Your task to perform on an android device: search for starred emails in the gmail app Image 0: 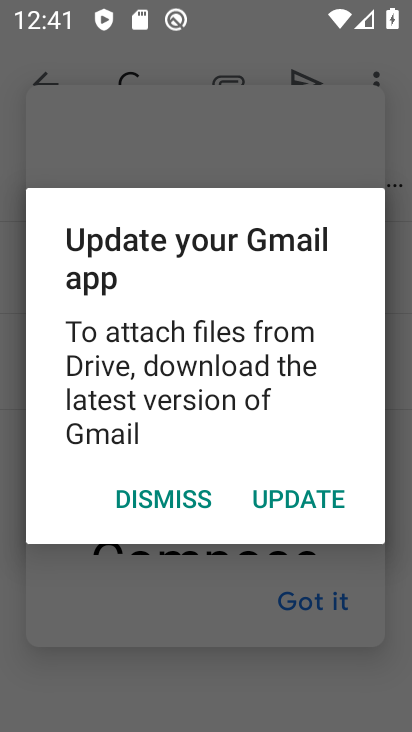
Step 0: press home button
Your task to perform on an android device: search for starred emails in the gmail app Image 1: 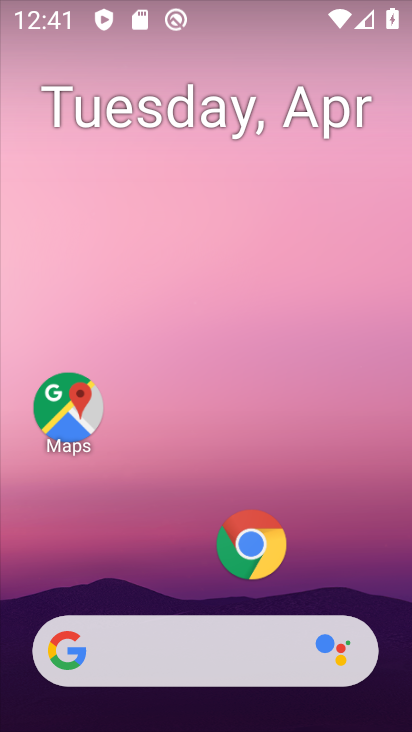
Step 1: drag from (311, 580) to (255, 73)
Your task to perform on an android device: search for starred emails in the gmail app Image 2: 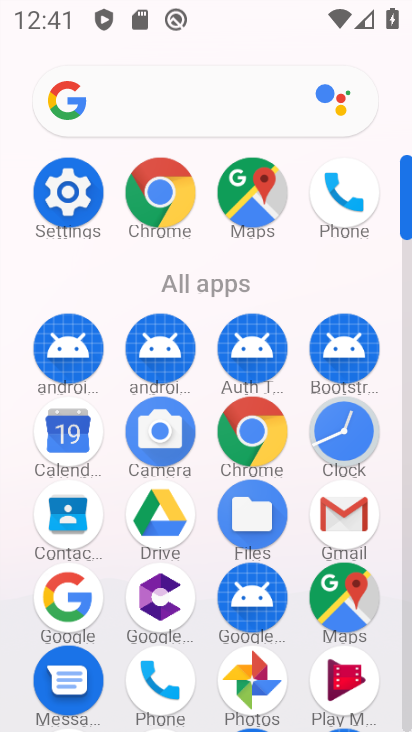
Step 2: click (337, 502)
Your task to perform on an android device: search for starred emails in the gmail app Image 3: 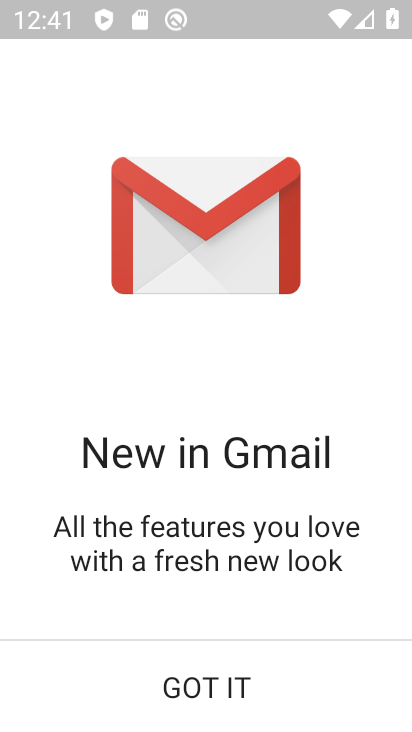
Step 3: click (208, 683)
Your task to perform on an android device: search for starred emails in the gmail app Image 4: 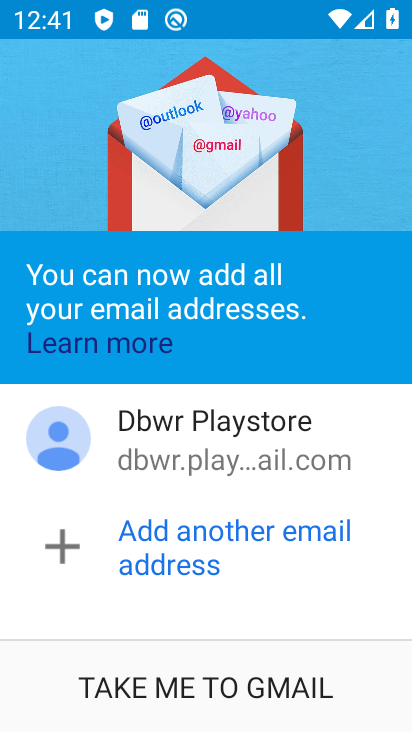
Step 4: click (208, 683)
Your task to perform on an android device: search for starred emails in the gmail app Image 5: 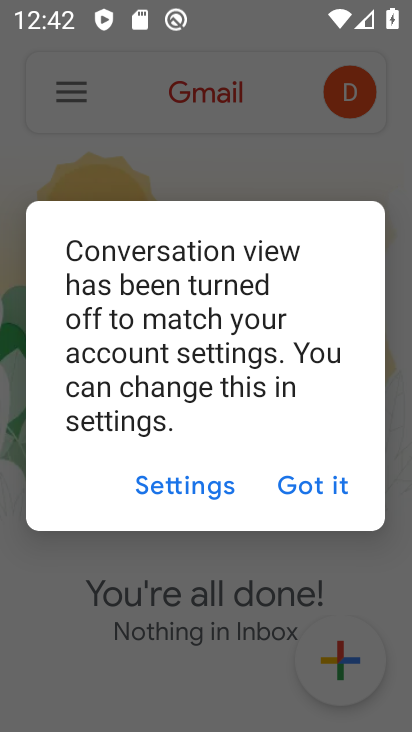
Step 5: click (302, 484)
Your task to perform on an android device: search for starred emails in the gmail app Image 6: 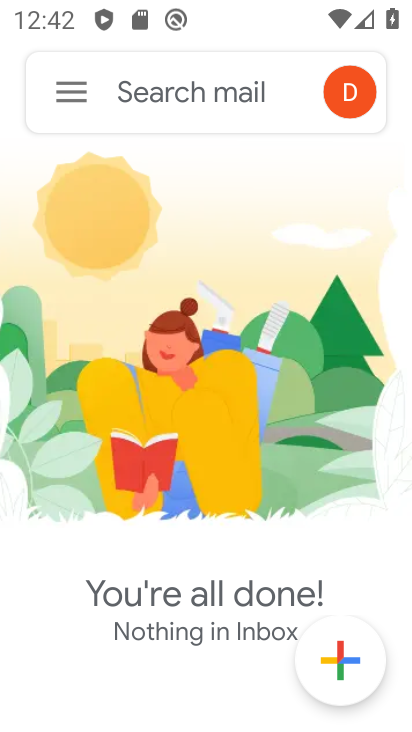
Step 6: click (60, 93)
Your task to perform on an android device: search for starred emails in the gmail app Image 7: 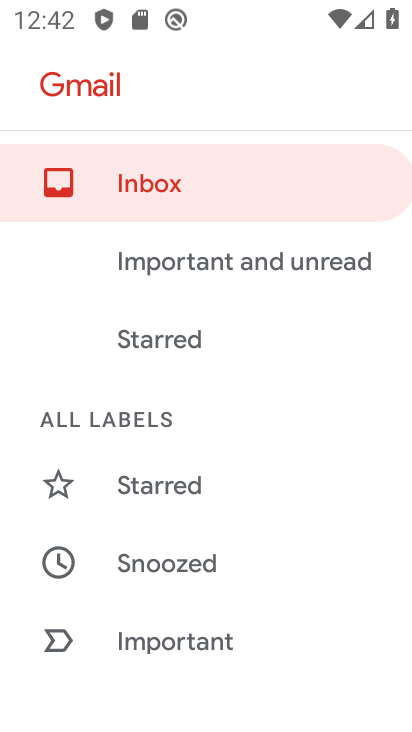
Step 7: click (151, 331)
Your task to perform on an android device: search for starred emails in the gmail app Image 8: 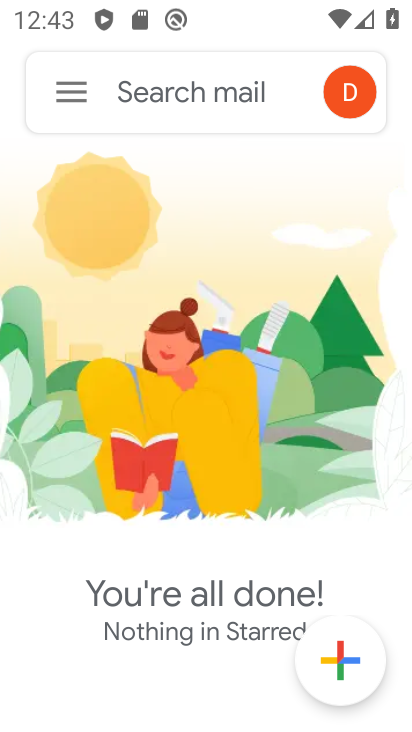
Step 8: task complete